Your task to perform on an android device: Open settings on Google Maps Image 0: 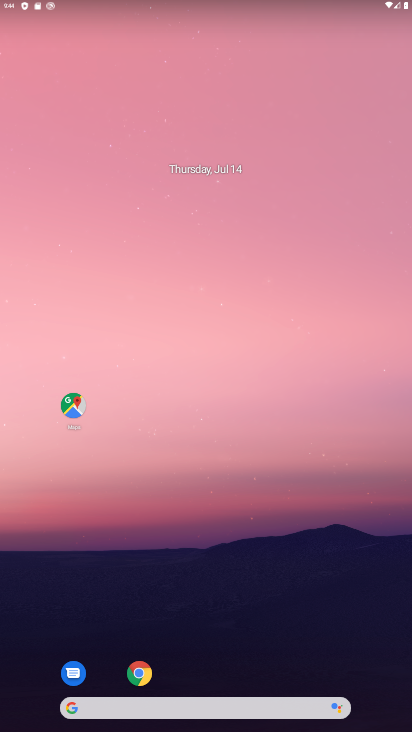
Step 0: drag from (268, 555) to (225, 155)
Your task to perform on an android device: Open settings on Google Maps Image 1: 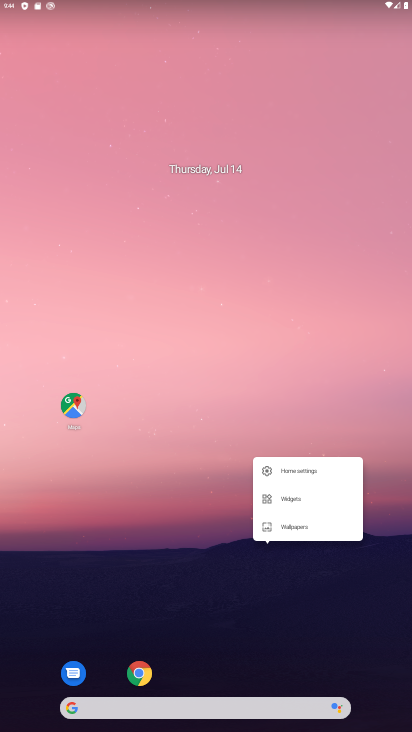
Step 1: click (76, 409)
Your task to perform on an android device: Open settings on Google Maps Image 2: 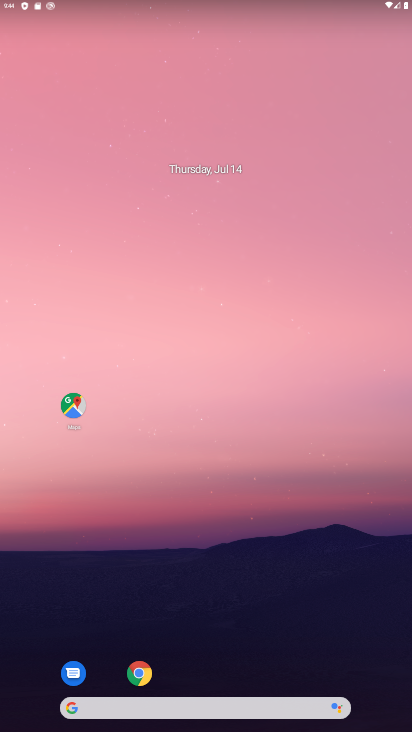
Step 2: click (65, 401)
Your task to perform on an android device: Open settings on Google Maps Image 3: 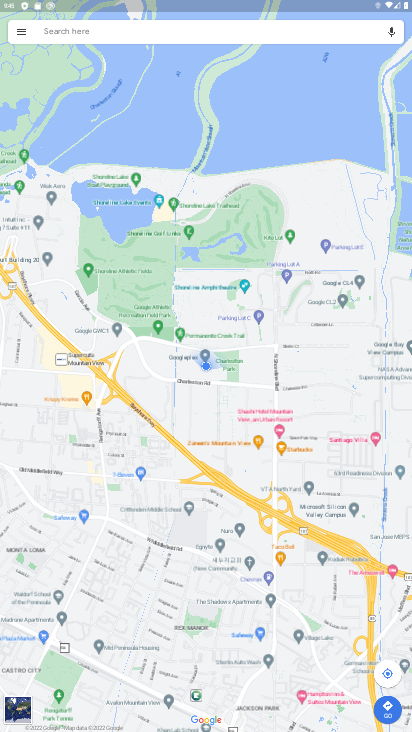
Step 3: task complete